Your task to perform on an android device: Play the last video I watched on Youtube Image 0: 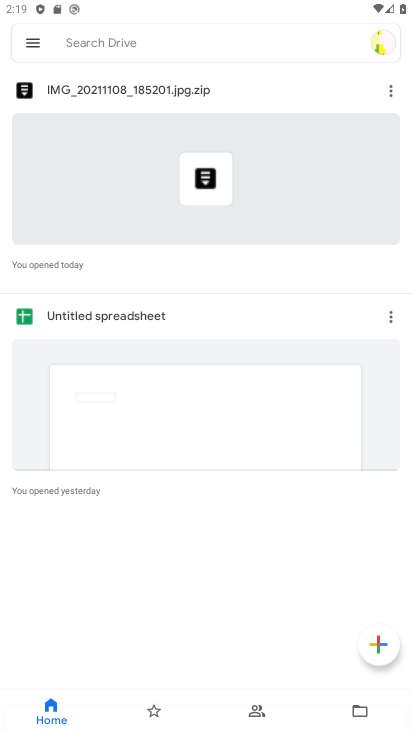
Step 0: press home button
Your task to perform on an android device: Play the last video I watched on Youtube Image 1: 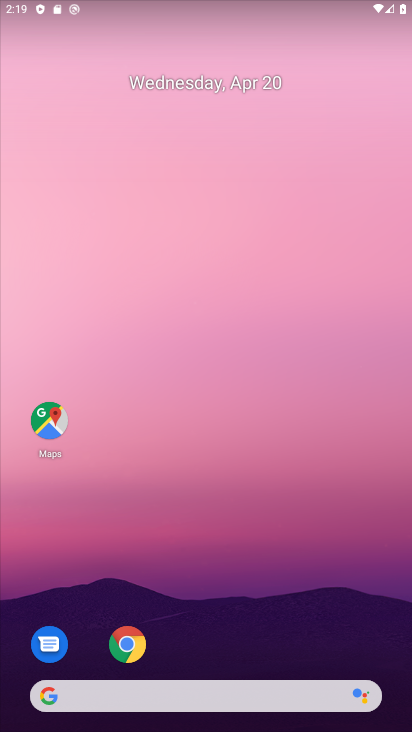
Step 1: drag from (375, 638) to (287, 241)
Your task to perform on an android device: Play the last video I watched on Youtube Image 2: 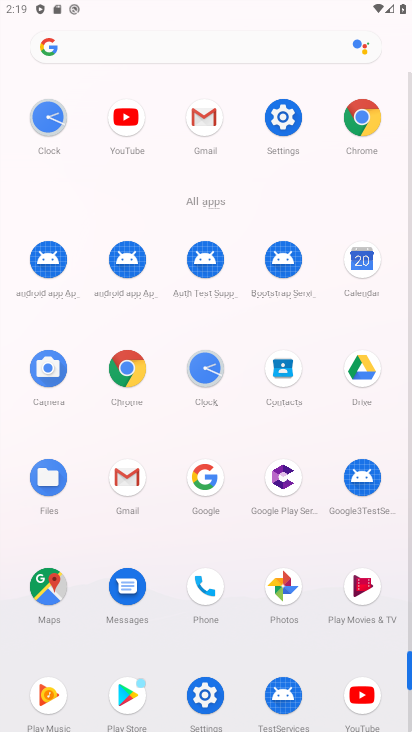
Step 2: click (357, 692)
Your task to perform on an android device: Play the last video I watched on Youtube Image 3: 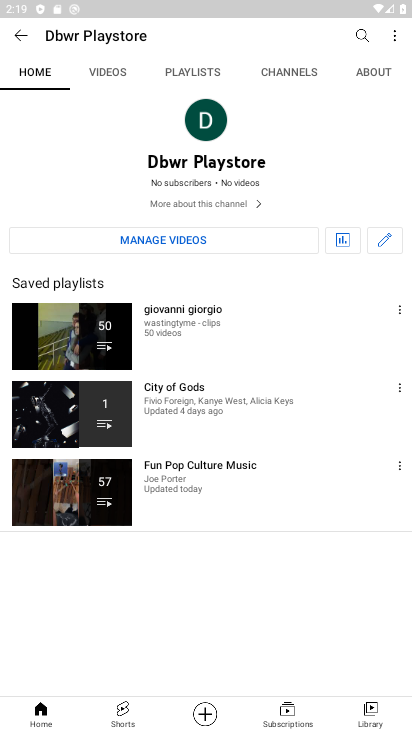
Step 3: click (382, 717)
Your task to perform on an android device: Play the last video I watched on Youtube Image 4: 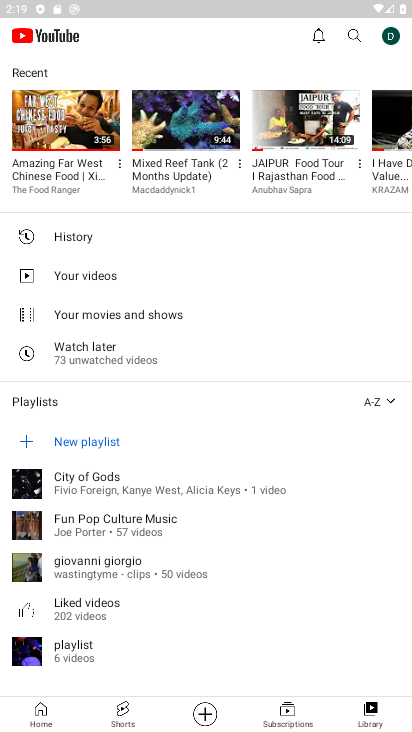
Step 4: click (62, 120)
Your task to perform on an android device: Play the last video I watched on Youtube Image 5: 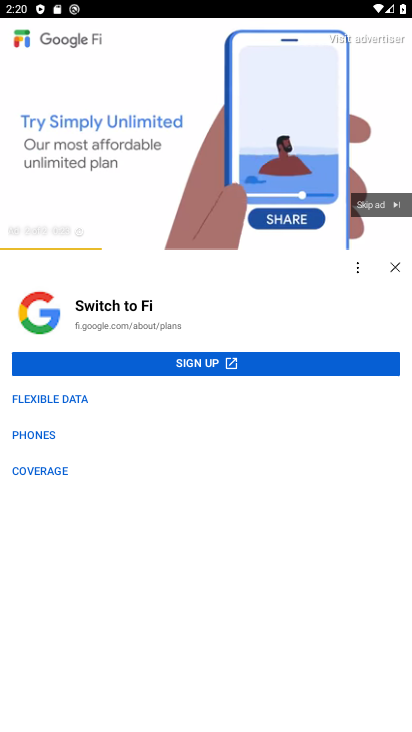
Step 5: click (377, 204)
Your task to perform on an android device: Play the last video I watched on Youtube Image 6: 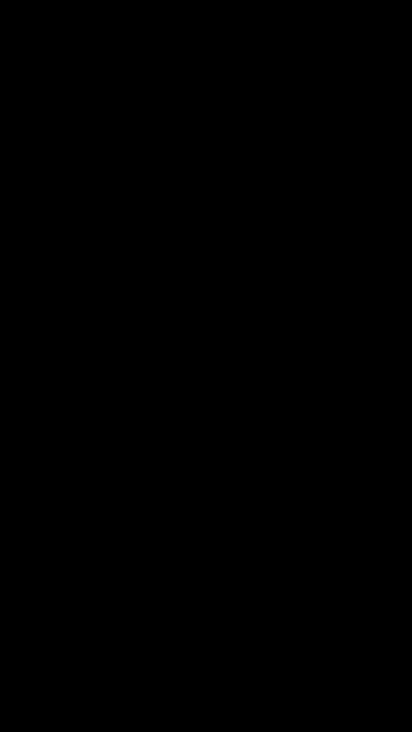
Step 6: task complete